Your task to perform on an android device: uninstall "WhatsApp Messenger" Image 0: 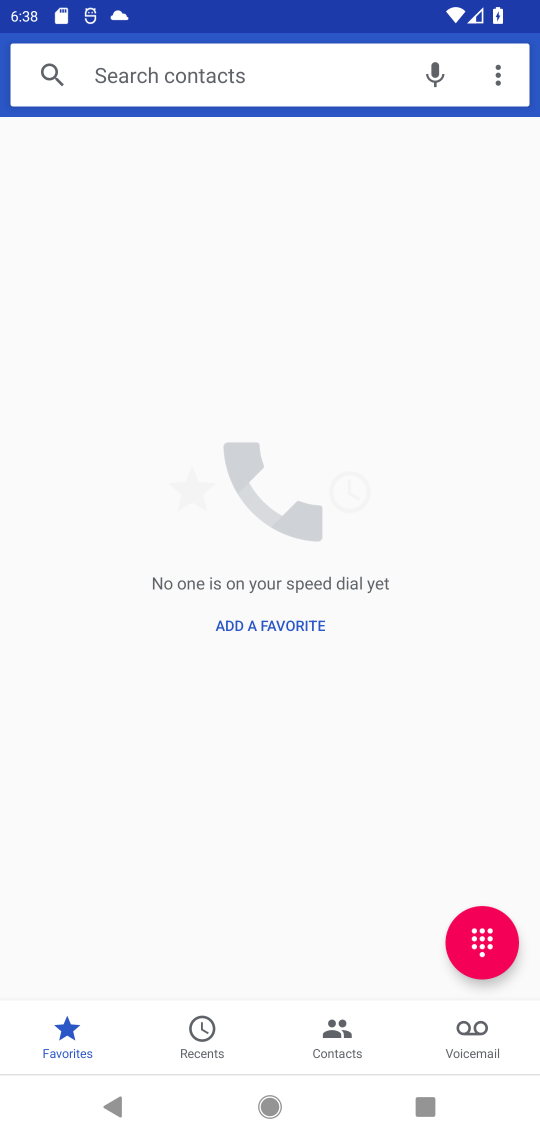
Step 0: press home button
Your task to perform on an android device: uninstall "WhatsApp Messenger" Image 1: 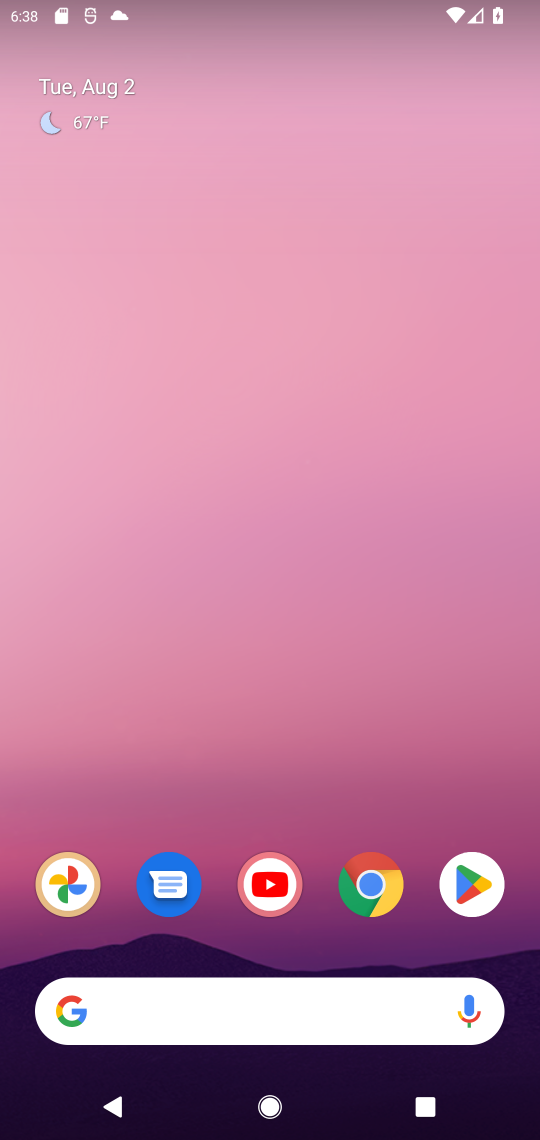
Step 1: click (461, 896)
Your task to perform on an android device: uninstall "WhatsApp Messenger" Image 2: 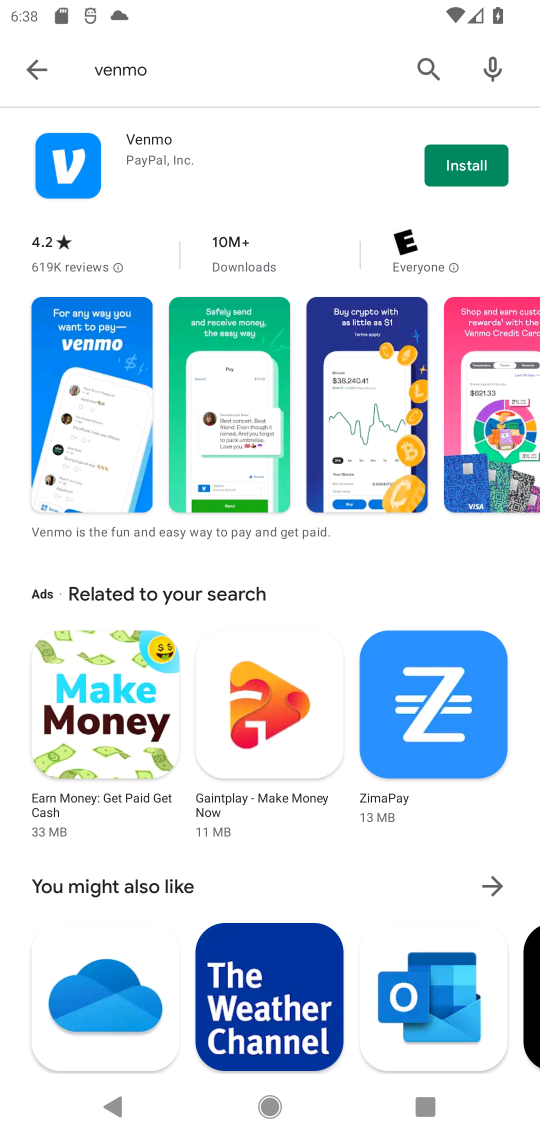
Step 2: click (429, 64)
Your task to perform on an android device: uninstall "WhatsApp Messenger" Image 3: 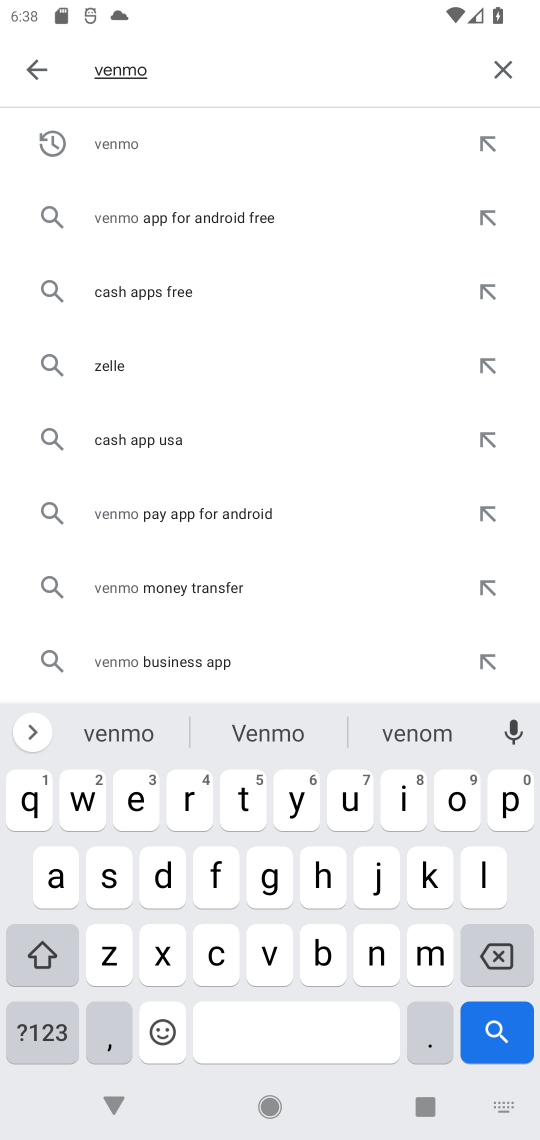
Step 3: click (504, 53)
Your task to perform on an android device: uninstall "WhatsApp Messenger" Image 4: 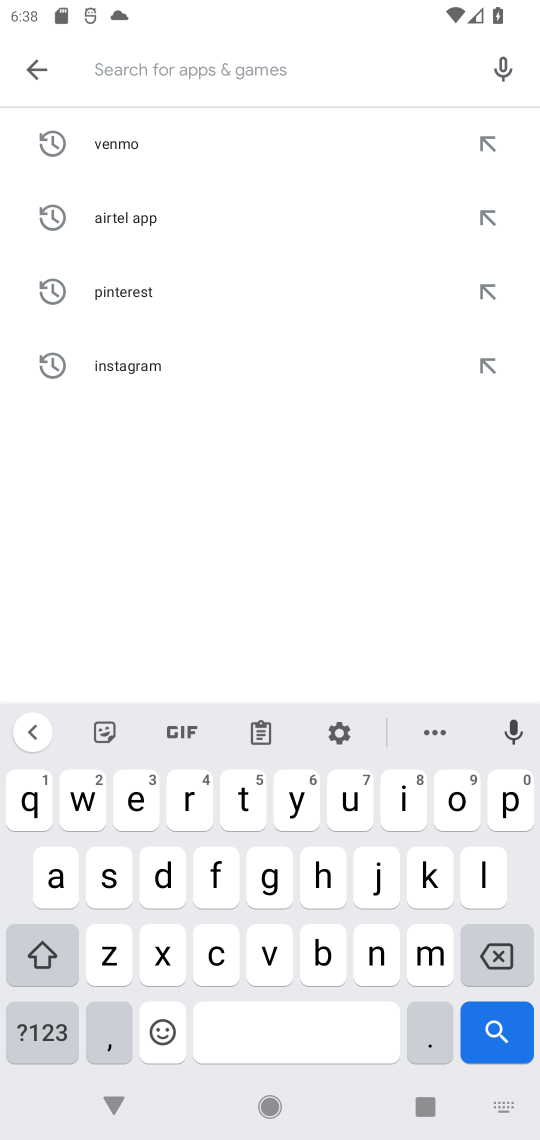
Step 4: click (72, 805)
Your task to perform on an android device: uninstall "WhatsApp Messenger" Image 5: 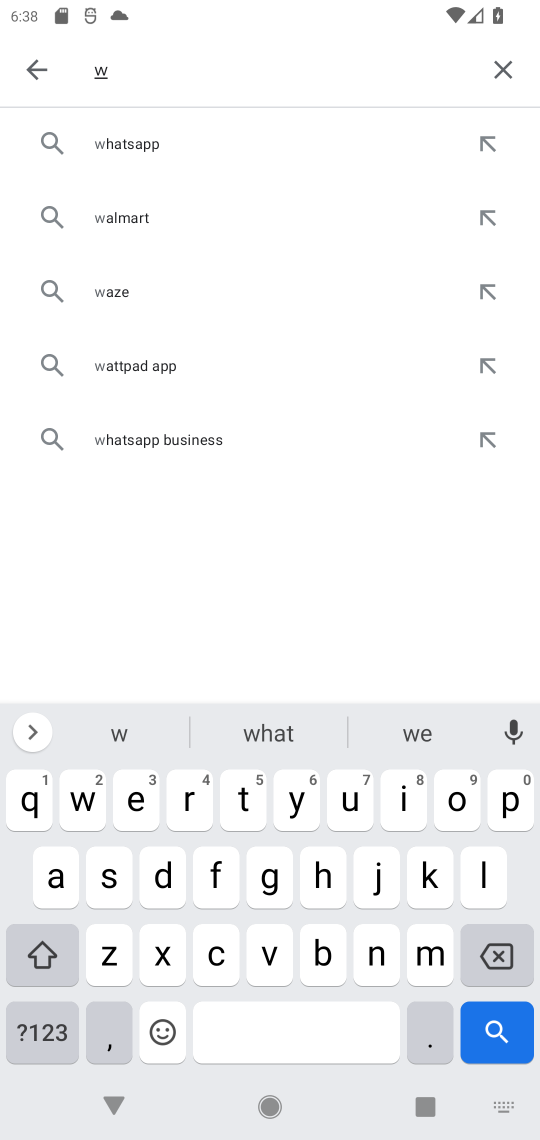
Step 5: click (326, 871)
Your task to perform on an android device: uninstall "WhatsApp Messenger" Image 6: 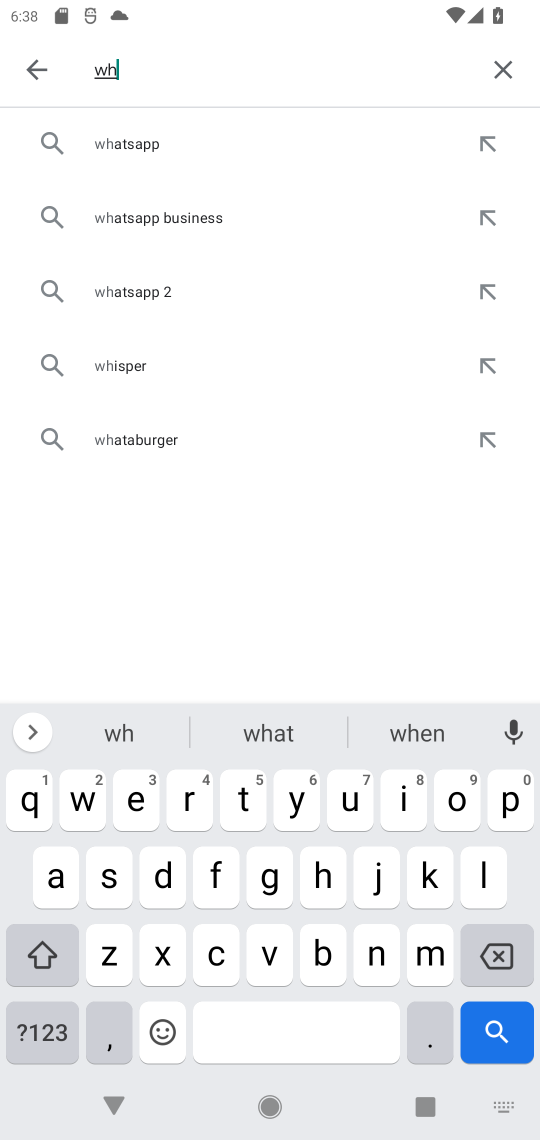
Step 6: click (163, 138)
Your task to perform on an android device: uninstall "WhatsApp Messenger" Image 7: 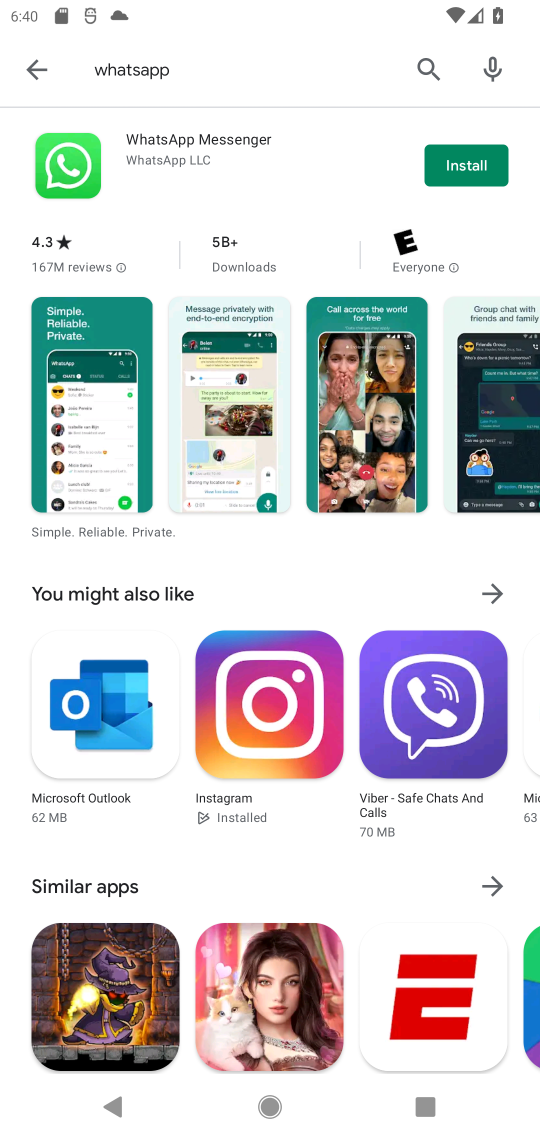
Step 7: task complete